Your task to perform on an android device: turn pop-ups on in chrome Image 0: 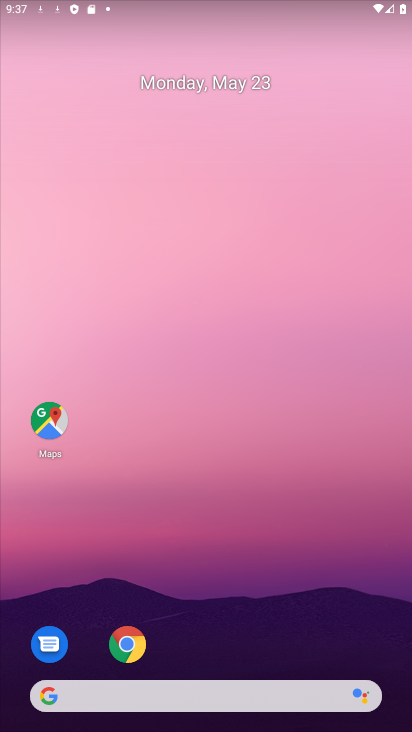
Step 0: drag from (303, 713) to (206, 97)
Your task to perform on an android device: turn pop-ups on in chrome Image 1: 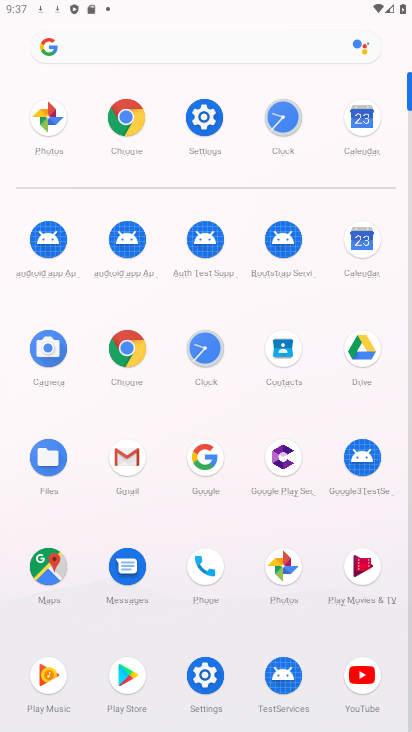
Step 1: click (117, 360)
Your task to perform on an android device: turn pop-ups on in chrome Image 2: 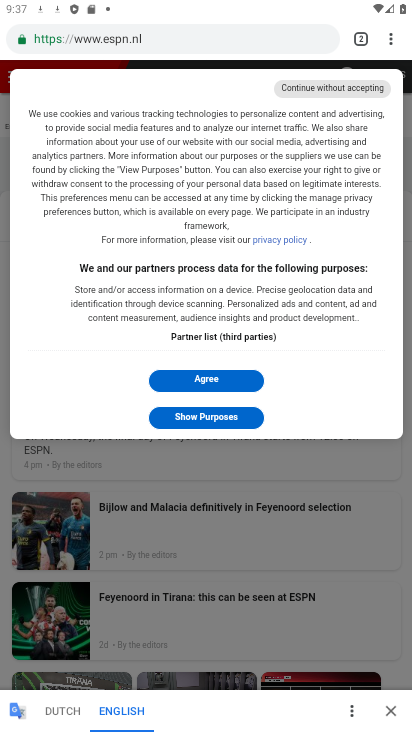
Step 2: click (392, 35)
Your task to perform on an android device: turn pop-ups on in chrome Image 3: 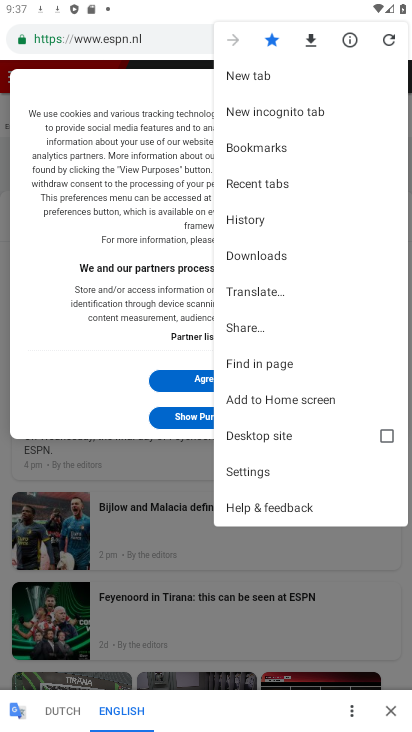
Step 3: click (285, 472)
Your task to perform on an android device: turn pop-ups on in chrome Image 4: 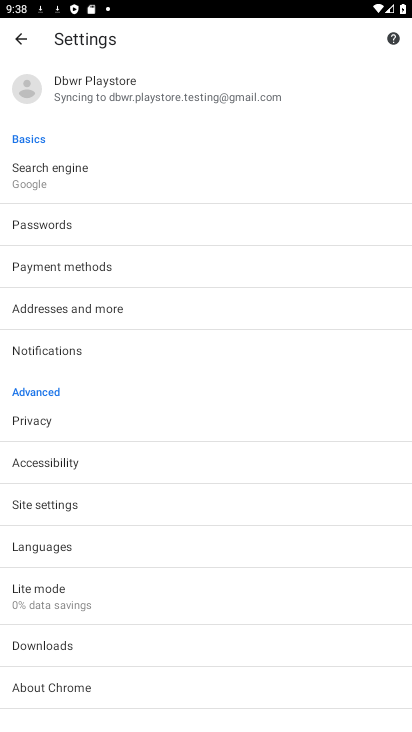
Step 4: click (80, 498)
Your task to perform on an android device: turn pop-ups on in chrome Image 5: 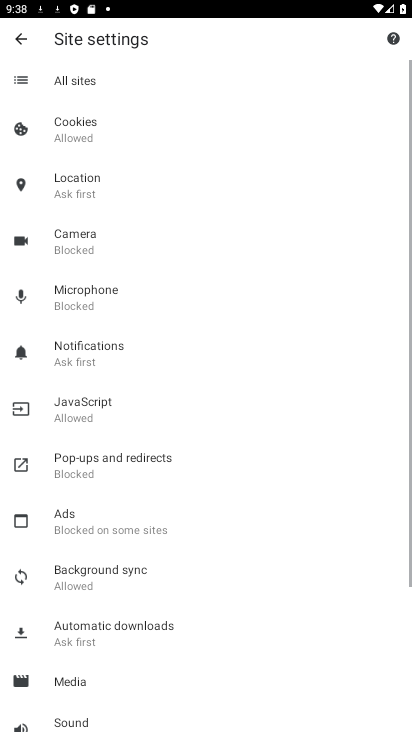
Step 5: click (133, 456)
Your task to perform on an android device: turn pop-ups on in chrome Image 6: 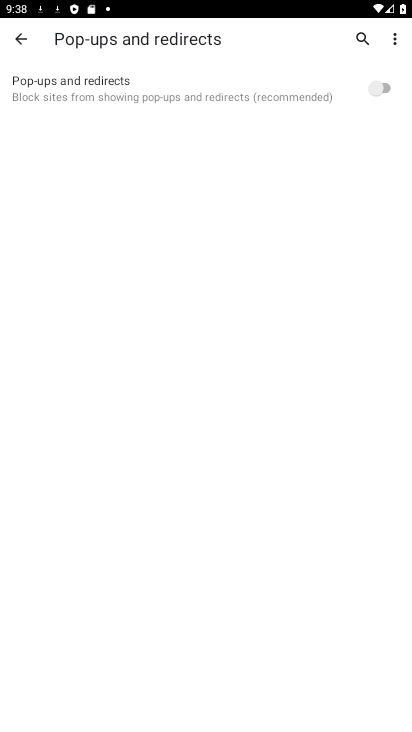
Step 6: click (382, 97)
Your task to perform on an android device: turn pop-ups on in chrome Image 7: 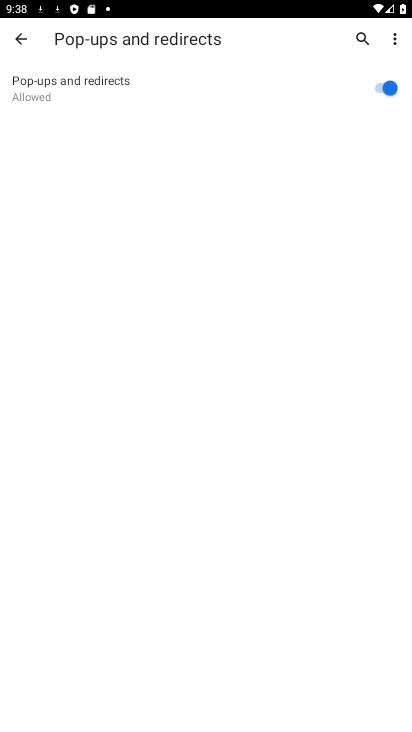
Step 7: task complete